Your task to perform on an android device: turn off priority inbox in the gmail app Image 0: 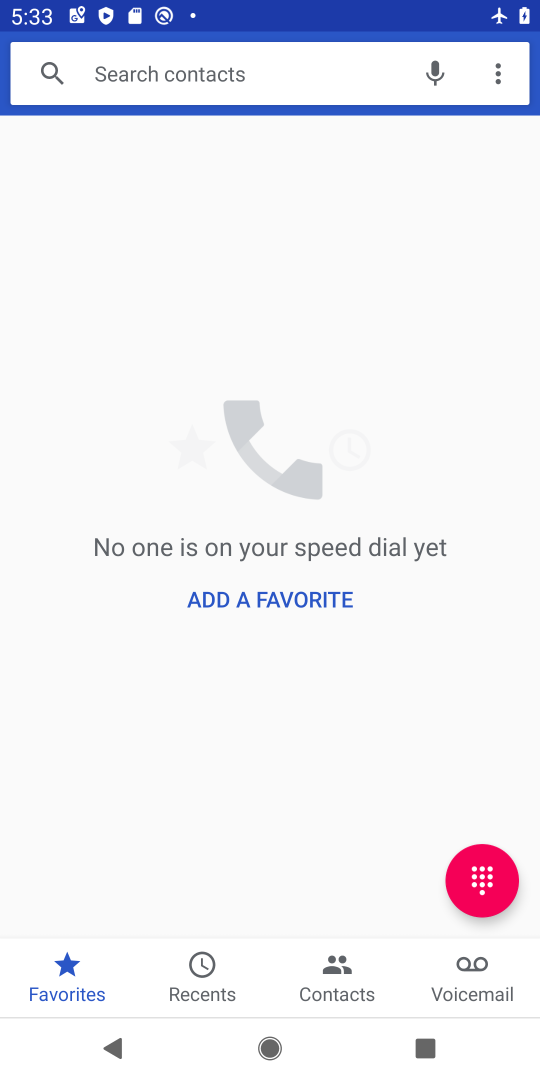
Step 0: press home button
Your task to perform on an android device: turn off priority inbox in the gmail app Image 1: 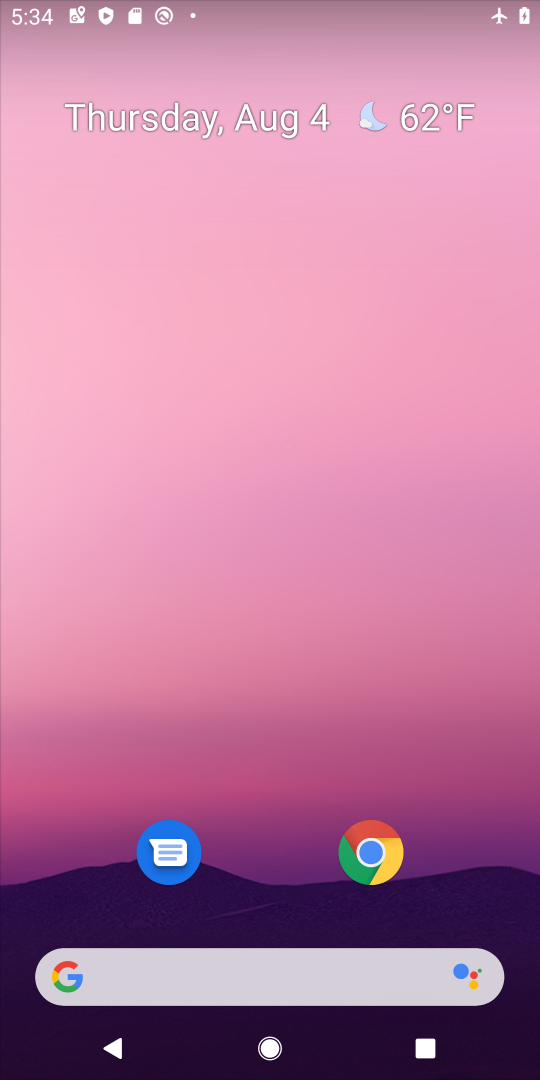
Step 1: drag from (247, 782) to (211, 112)
Your task to perform on an android device: turn off priority inbox in the gmail app Image 2: 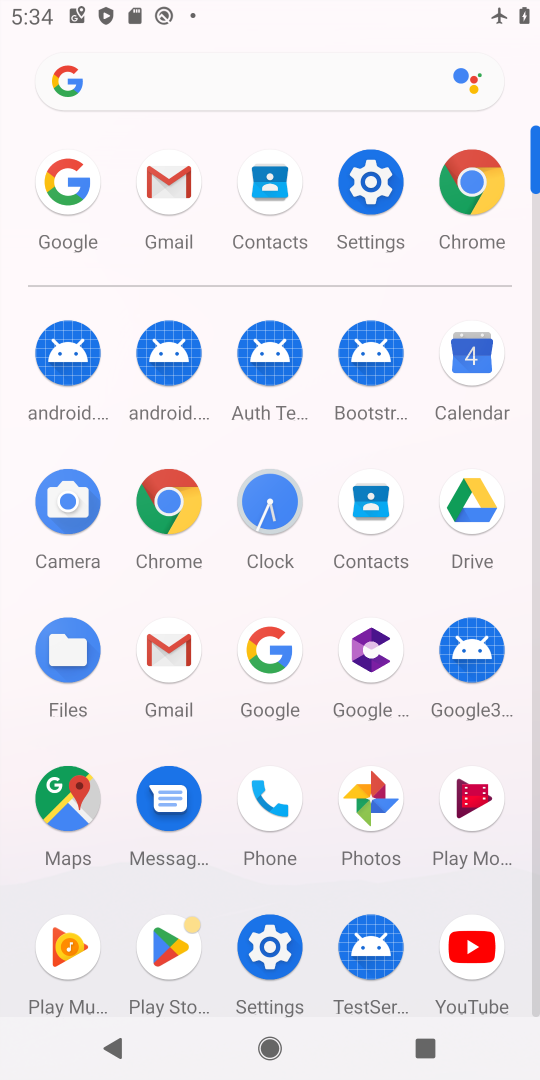
Step 2: click (177, 652)
Your task to perform on an android device: turn off priority inbox in the gmail app Image 3: 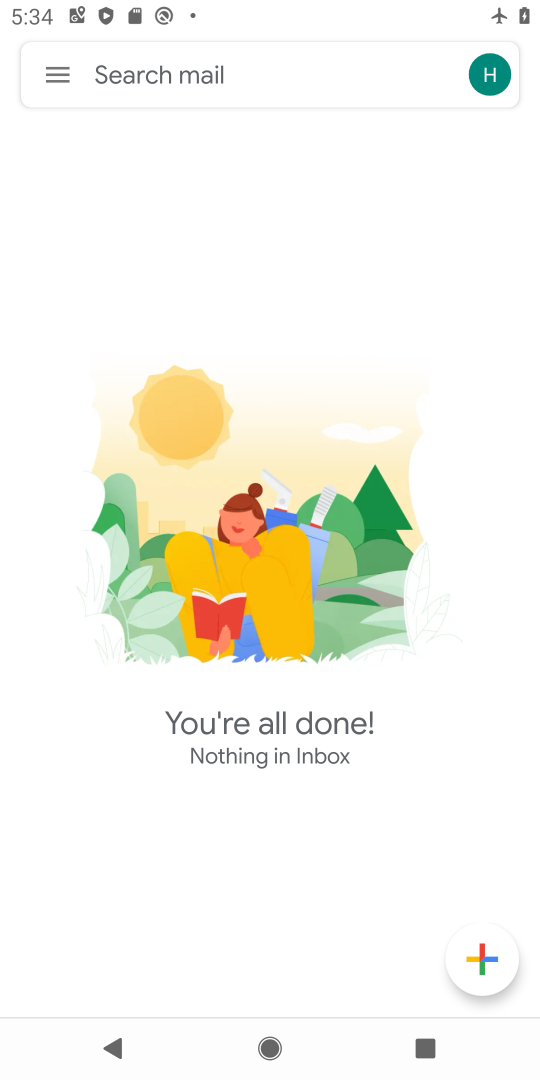
Step 3: click (59, 68)
Your task to perform on an android device: turn off priority inbox in the gmail app Image 4: 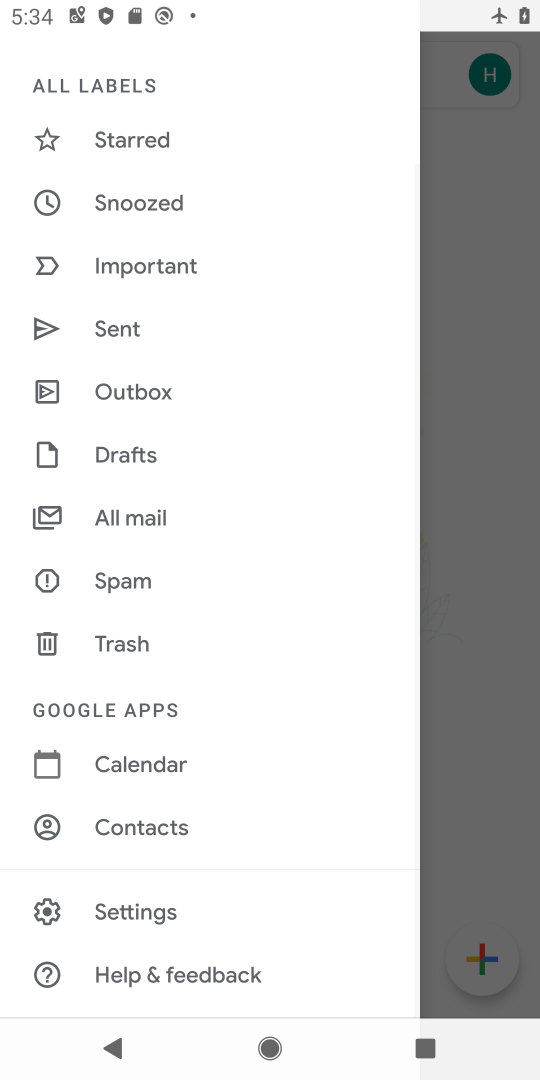
Step 4: click (163, 913)
Your task to perform on an android device: turn off priority inbox in the gmail app Image 5: 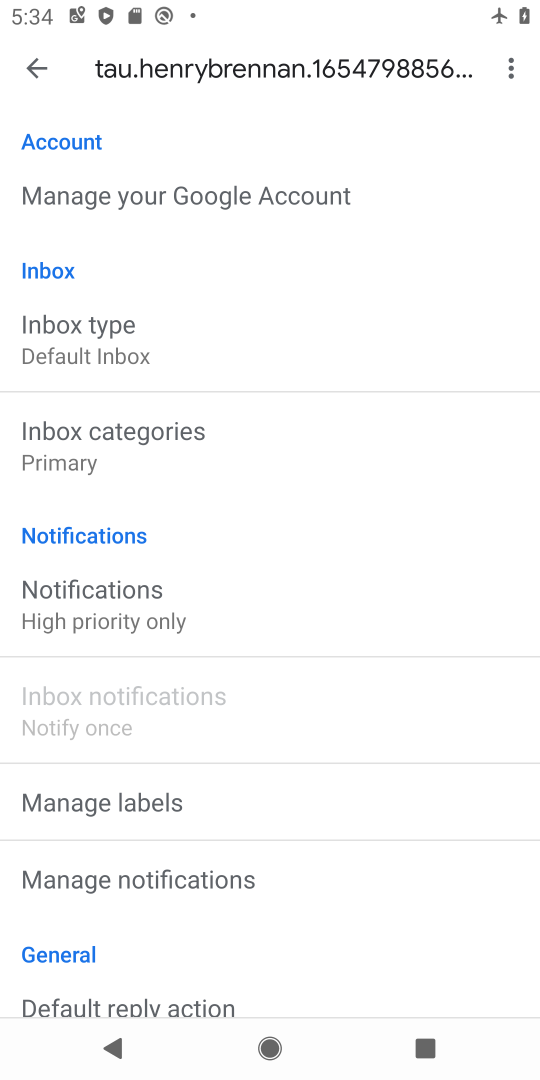
Step 5: drag from (141, 290) to (172, 764)
Your task to perform on an android device: turn off priority inbox in the gmail app Image 6: 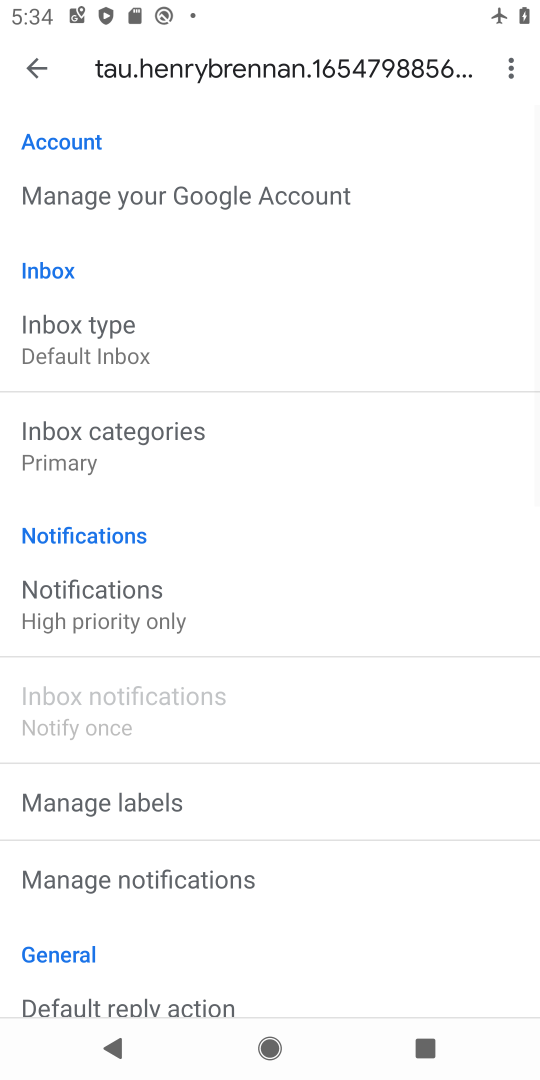
Step 6: click (101, 337)
Your task to perform on an android device: turn off priority inbox in the gmail app Image 7: 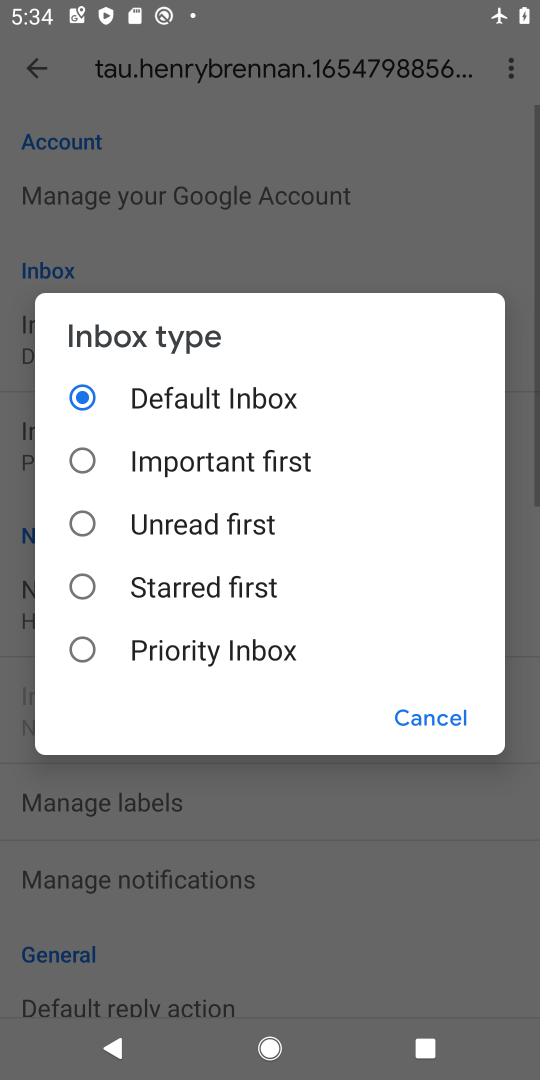
Step 7: click (80, 650)
Your task to perform on an android device: turn off priority inbox in the gmail app Image 8: 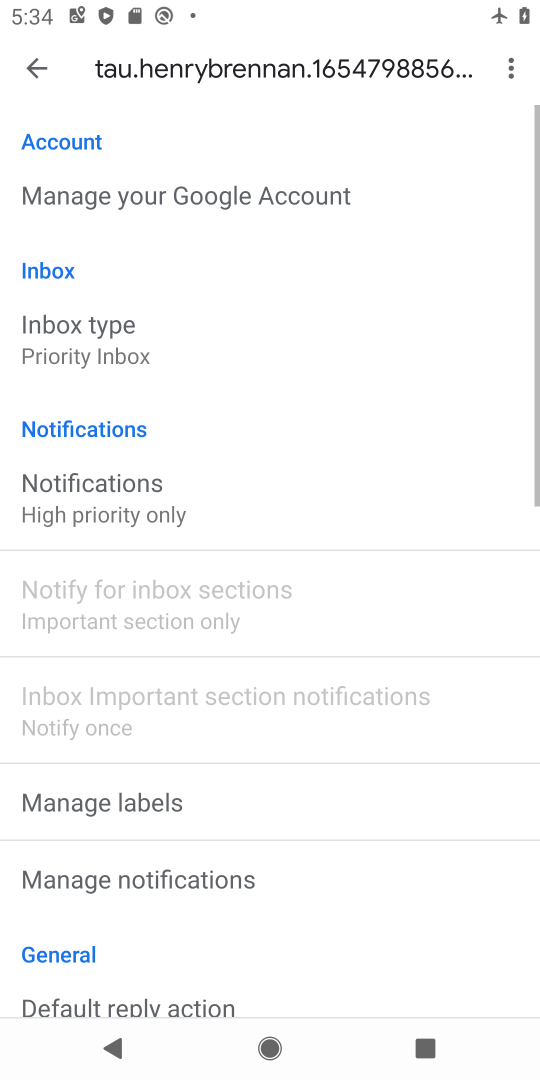
Step 8: task complete